Your task to perform on an android device: Open the web browser Image 0: 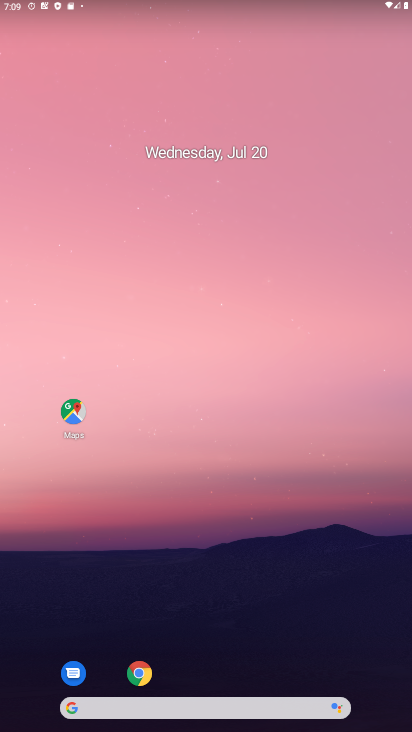
Step 0: drag from (378, 661) to (162, 64)
Your task to perform on an android device: Open the web browser Image 1: 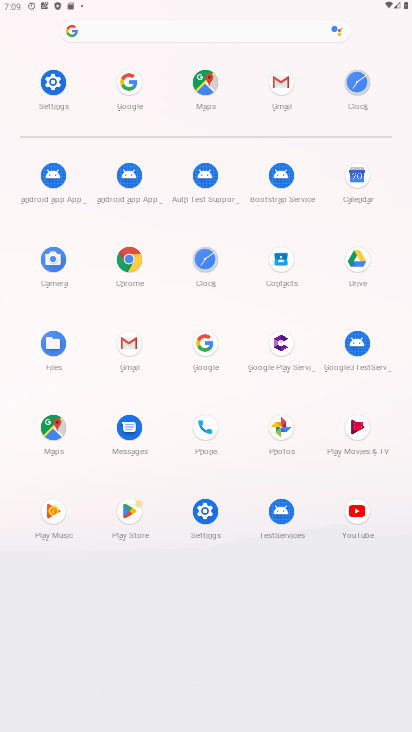
Step 1: click (200, 352)
Your task to perform on an android device: Open the web browser Image 2: 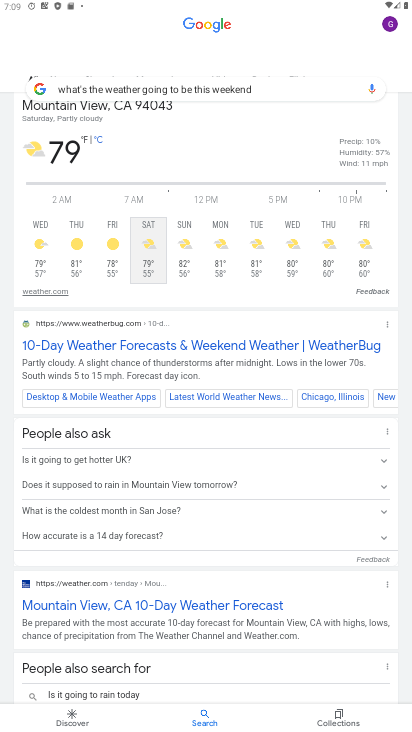
Step 2: press back button
Your task to perform on an android device: Open the web browser Image 3: 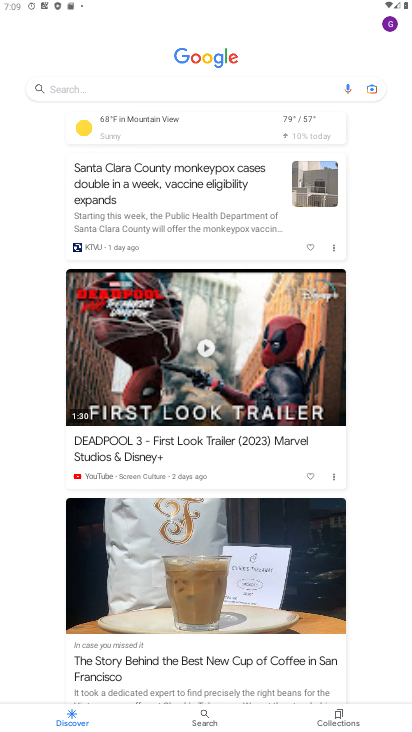
Step 3: click (116, 87)
Your task to perform on an android device: Open the web browser Image 4: 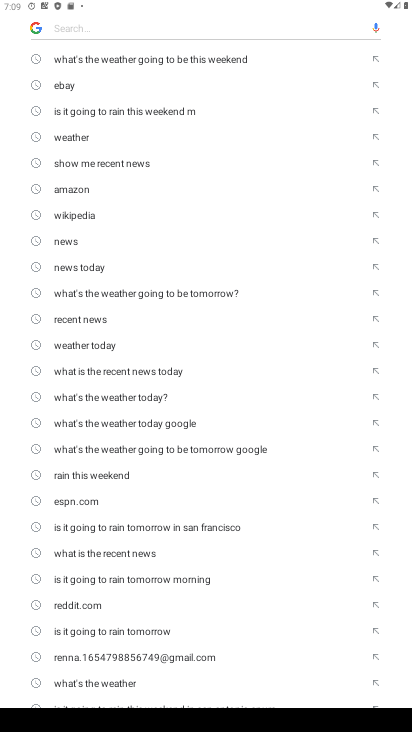
Step 4: type "web browser"
Your task to perform on an android device: Open the web browser Image 5: 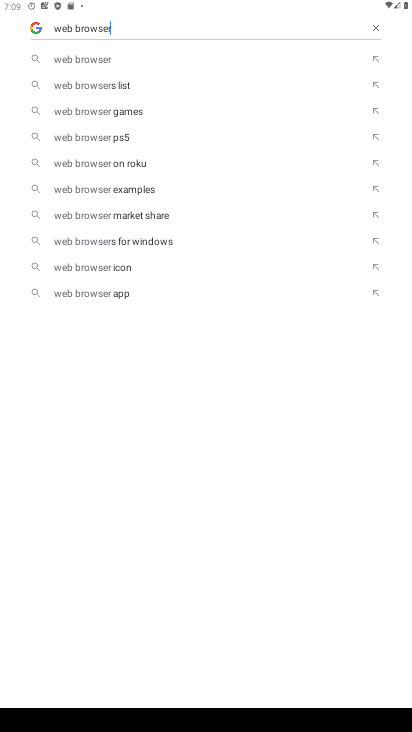
Step 5: click (57, 63)
Your task to perform on an android device: Open the web browser Image 6: 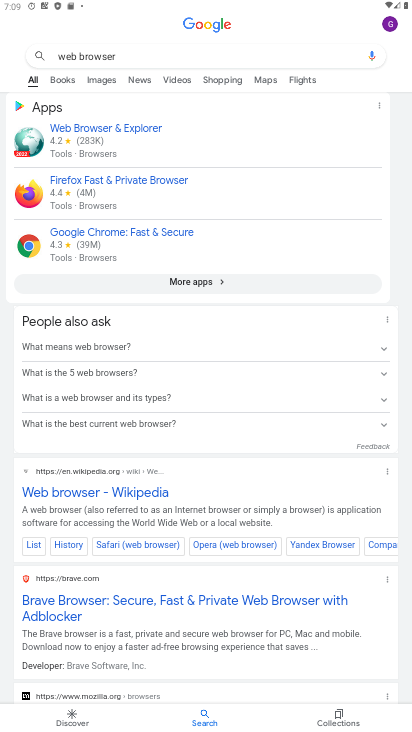
Step 6: task complete